Your task to perform on an android device: Show me the alarms in the clock app Image 0: 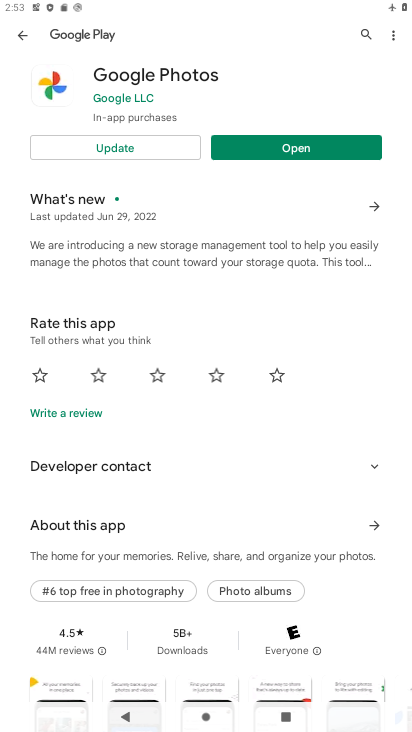
Step 0: press home button
Your task to perform on an android device: Show me the alarms in the clock app Image 1: 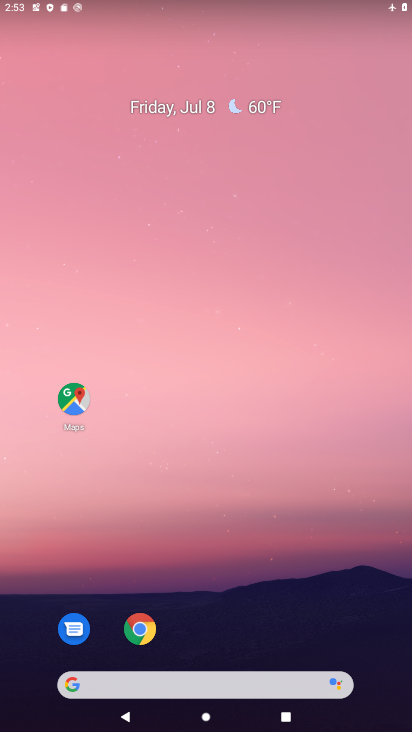
Step 1: drag from (202, 616) to (213, 145)
Your task to perform on an android device: Show me the alarms in the clock app Image 2: 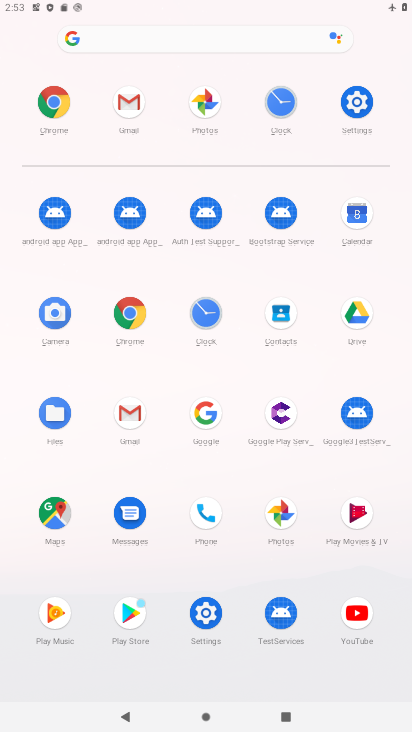
Step 2: click (289, 117)
Your task to perform on an android device: Show me the alarms in the clock app Image 3: 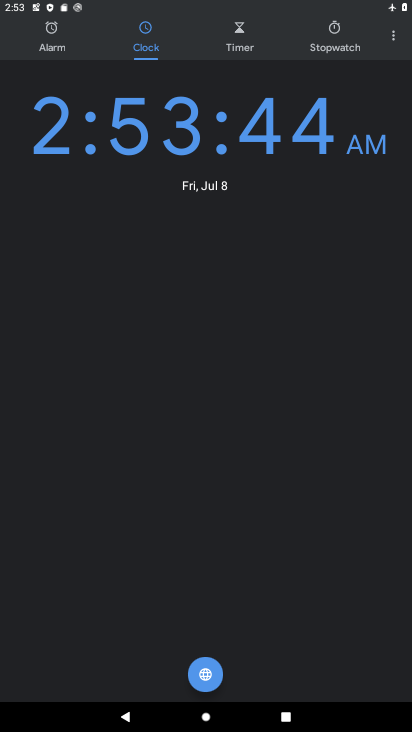
Step 3: click (389, 33)
Your task to perform on an android device: Show me the alarms in the clock app Image 4: 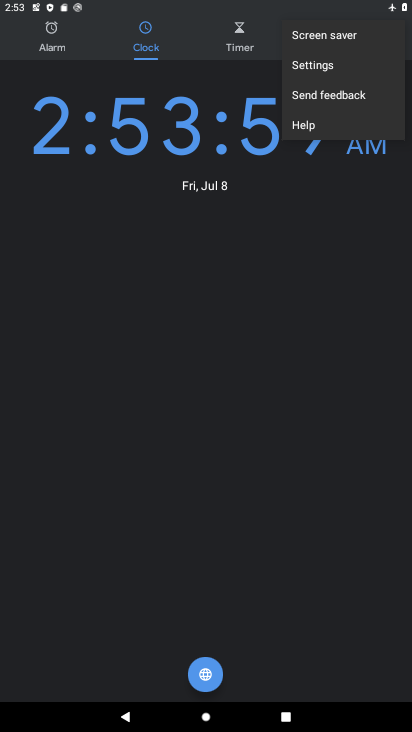
Step 4: click (50, 29)
Your task to perform on an android device: Show me the alarms in the clock app Image 5: 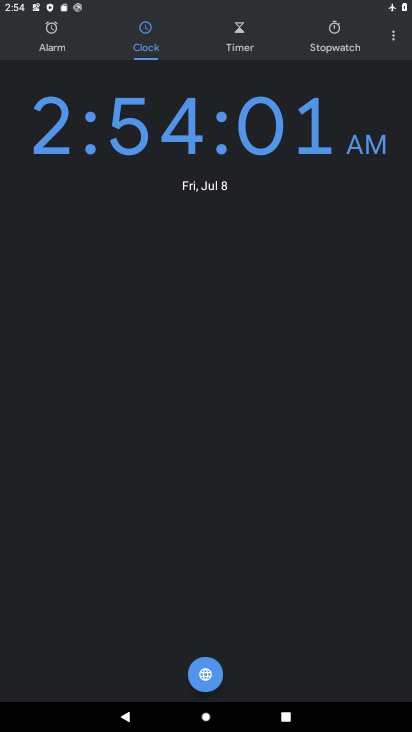
Step 5: click (49, 30)
Your task to perform on an android device: Show me the alarms in the clock app Image 6: 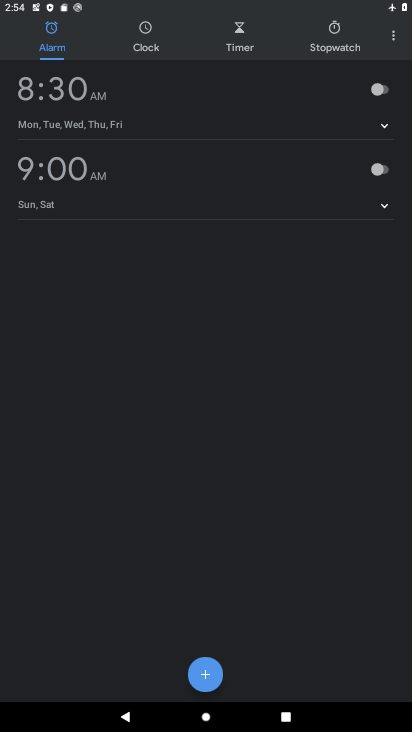
Step 6: task complete